Your task to perform on an android device: turn on javascript in the chrome app Image 0: 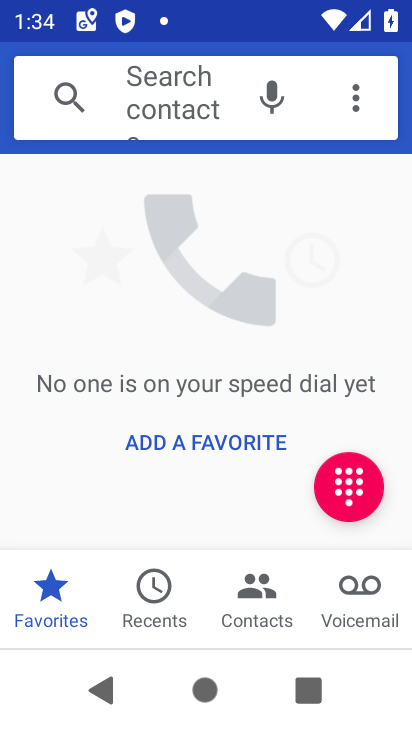
Step 0: press home button
Your task to perform on an android device: turn on javascript in the chrome app Image 1: 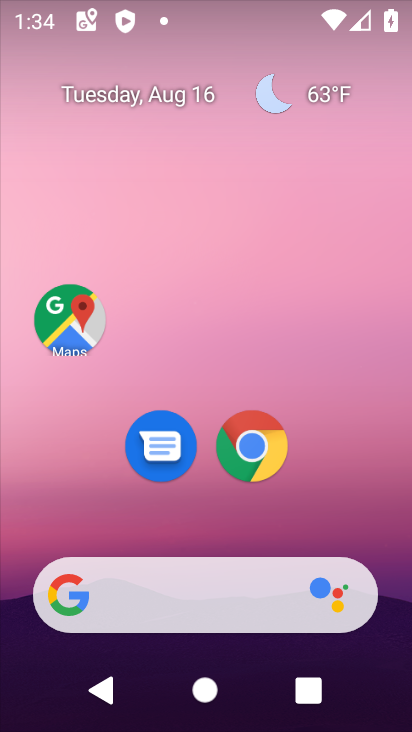
Step 1: drag from (204, 516) to (221, 9)
Your task to perform on an android device: turn on javascript in the chrome app Image 2: 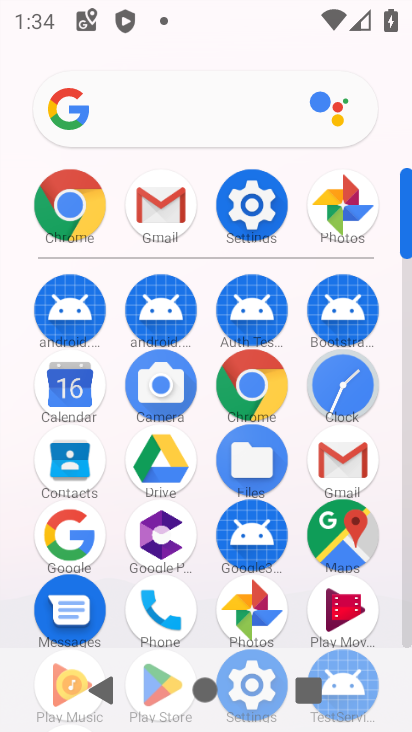
Step 2: click (246, 376)
Your task to perform on an android device: turn on javascript in the chrome app Image 3: 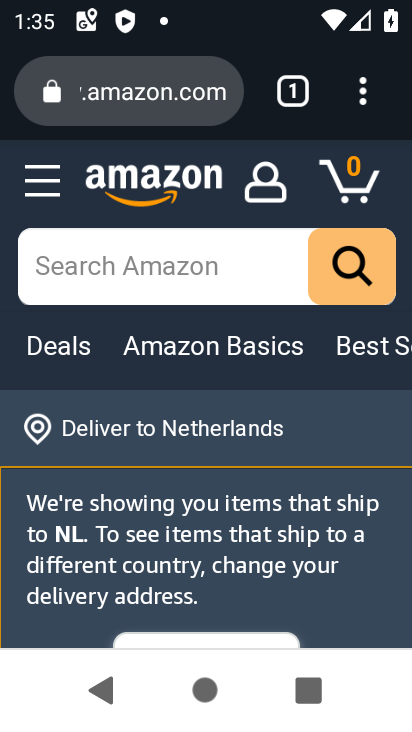
Step 3: click (362, 89)
Your task to perform on an android device: turn on javascript in the chrome app Image 4: 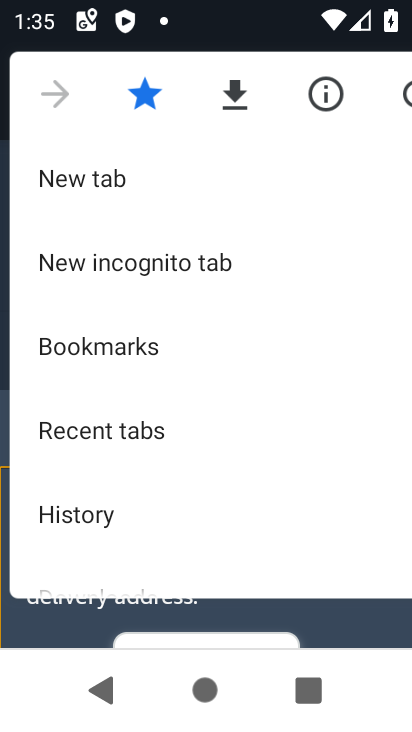
Step 4: drag from (184, 527) to (175, 46)
Your task to perform on an android device: turn on javascript in the chrome app Image 5: 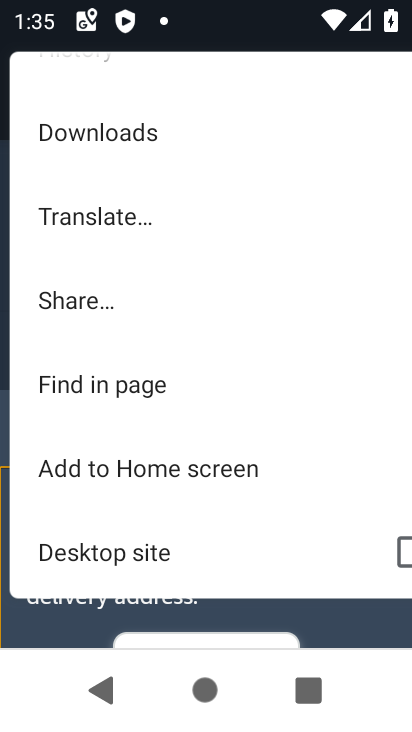
Step 5: drag from (194, 531) to (198, 43)
Your task to perform on an android device: turn on javascript in the chrome app Image 6: 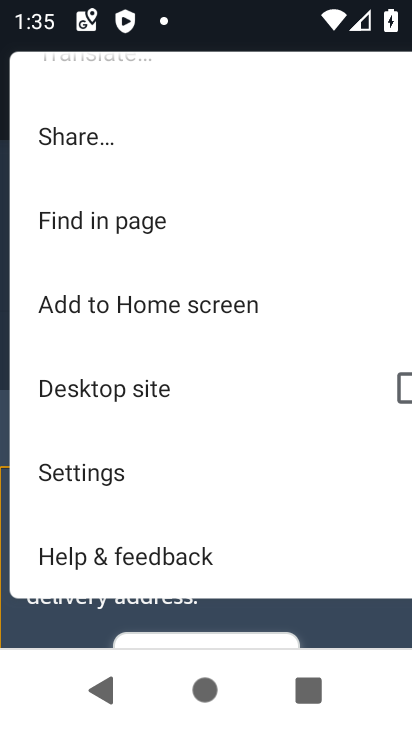
Step 6: click (142, 471)
Your task to perform on an android device: turn on javascript in the chrome app Image 7: 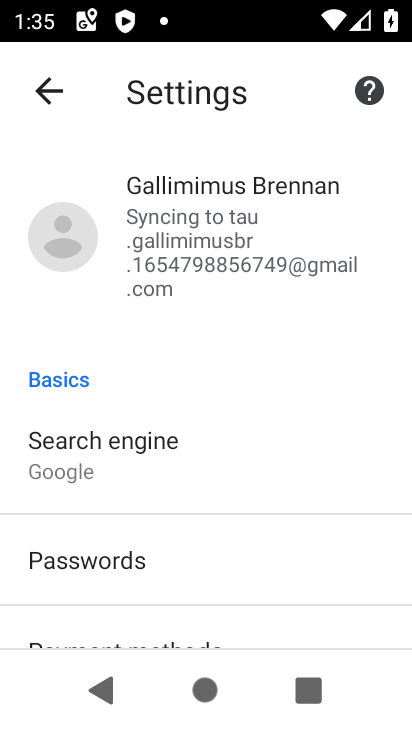
Step 7: drag from (214, 591) to (206, 3)
Your task to perform on an android device: turn on javascript in the chrome app Image 8: 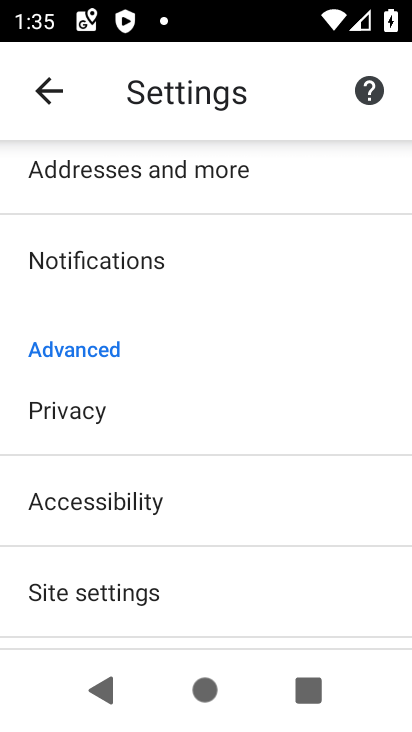
Step 8: drag from (186, 593) to (167, 173)
Your task to perform on an android device: turn on javascript in the chrome app Image 9: 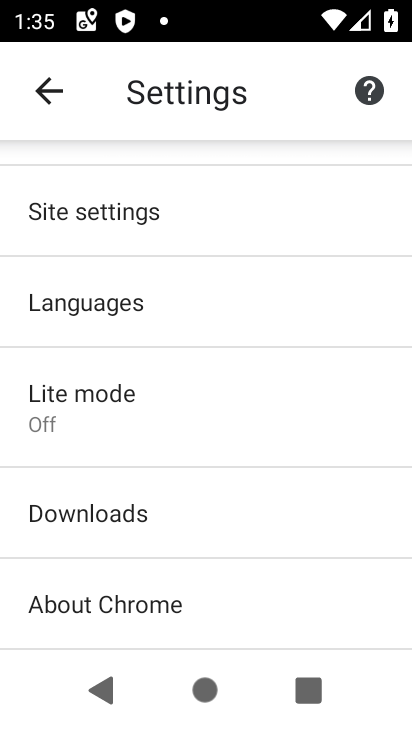
Step 9: click (164, 226)
Your task to perform on an android device: turn on javascript in the chrome app Image 10: 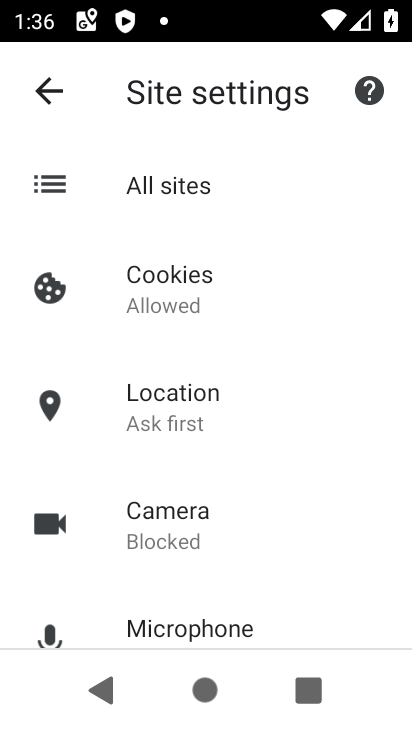
Step 10: drag from (219, 353) to (218, 126)
Your task to perform on an android device: turn on javascript in the chrome app Image 11: 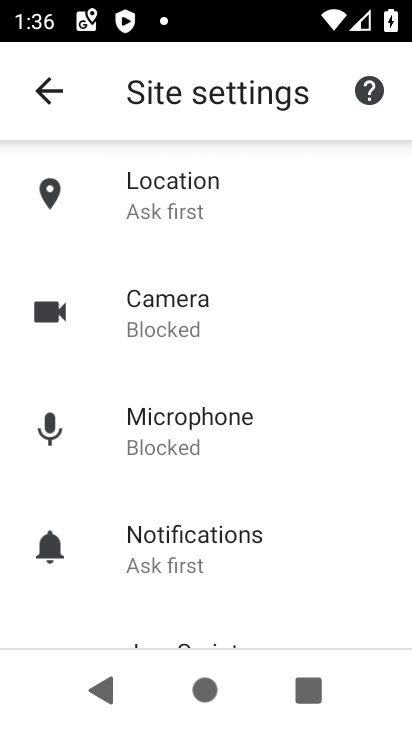
Step 11: drag from (245, 592) to (237, 126)
Your task to perform on an android device: turn on javascript in the chrome app Image 12: 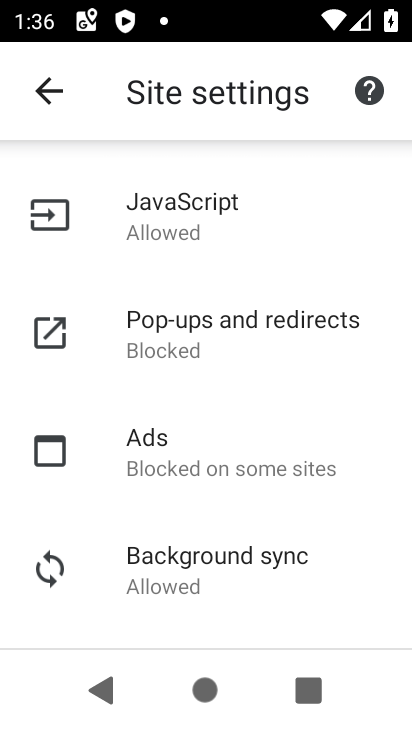
Step 12: click (212, 220)
Your task to perform on an android device: turn on javascript in the chrome app Image 13: 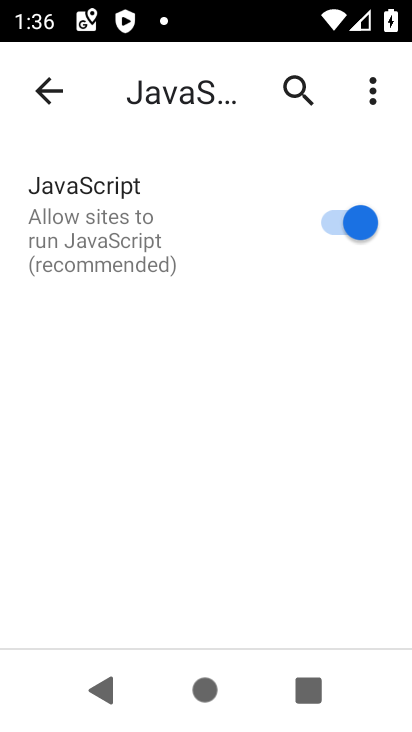
Step 13: task complete